Your task to perform on an android device: Open Wikipedia Image 0: 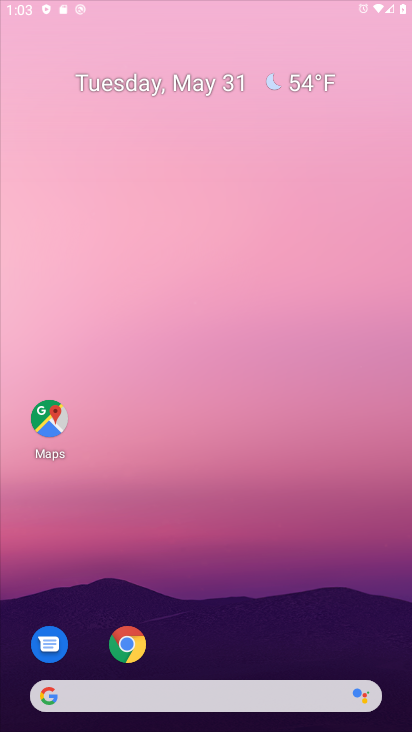
Step 0: press home button
Your task to perform on an android device: Open Wikipedia Image 1: 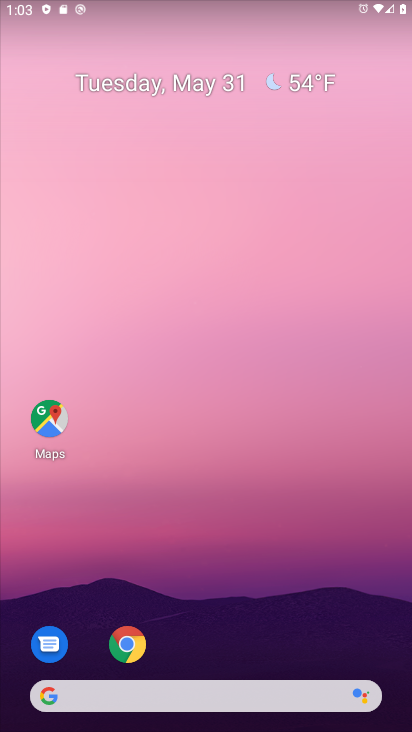
Step 1: click (47, 702)
Your task to perform on an android device: Open Wikipedia Image 2: 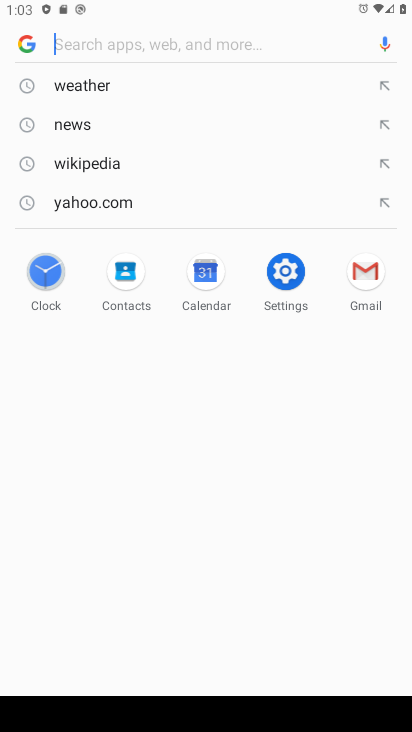
Step 2: click (87, 167)
Your task to perform on an android device: Open Wikipedia Image 3: 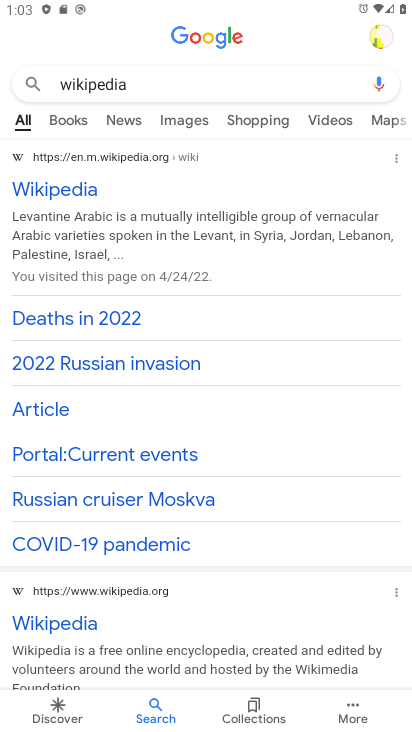
Step 3: click (62, 188)
Your task to perform on an android device: Open Wikipedia Image 4: 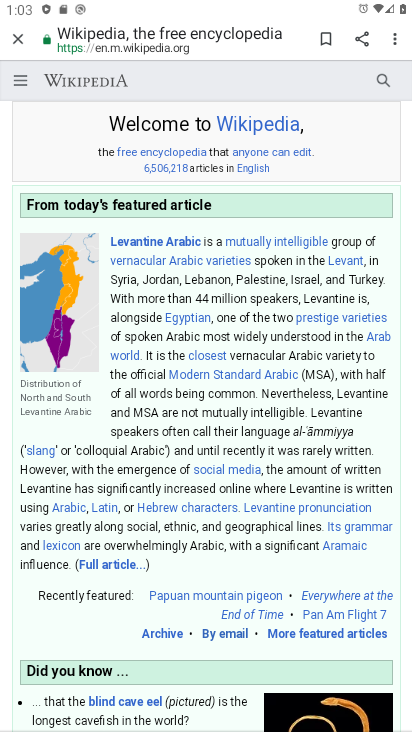
Step 4: task complete